Your task to perform on an android device: Open settings on Google Maps Image 0: 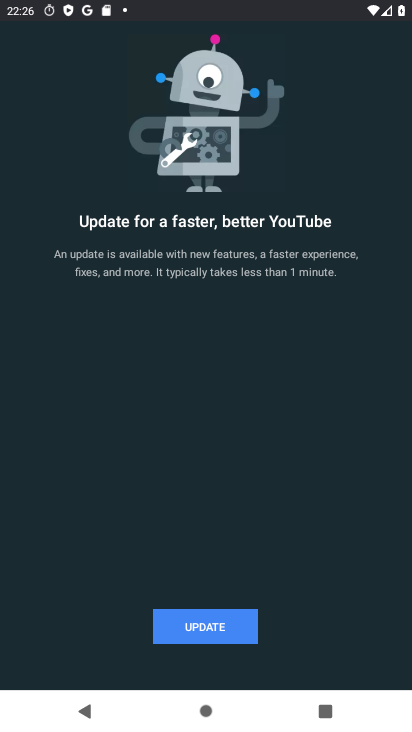
Step 0: press home button
Your task to perform on an android device: Open settings on Google Maps Image 1: 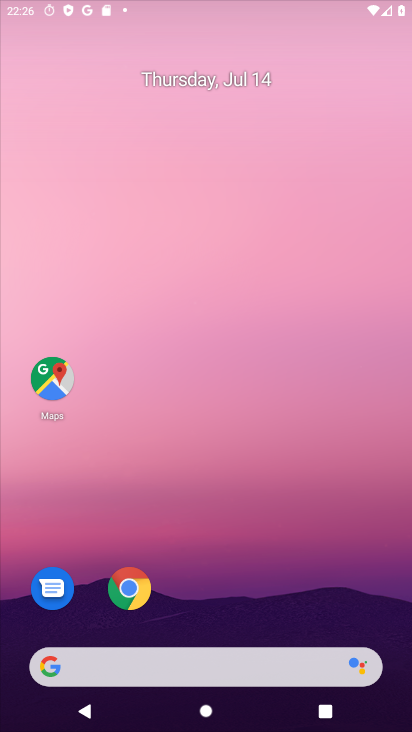
Step 1: drag from (218, 610) to (279, 218)
Your task to perform on an android device: Open settings on Google Maps Image 2: 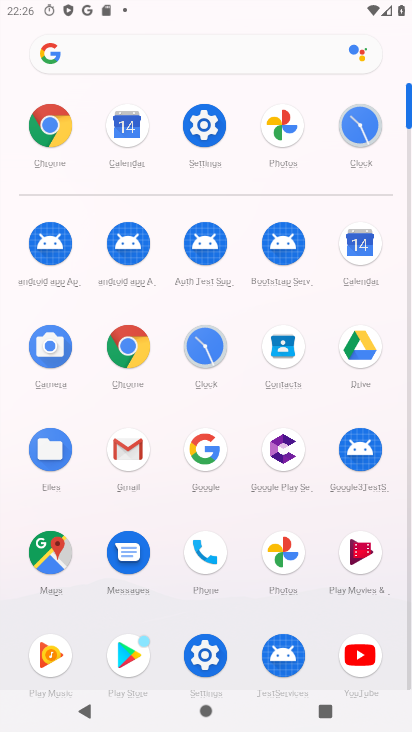
Step 2: click (46, 556)
Your task to perform on an android device: Open settings on Google Maps Image 3: 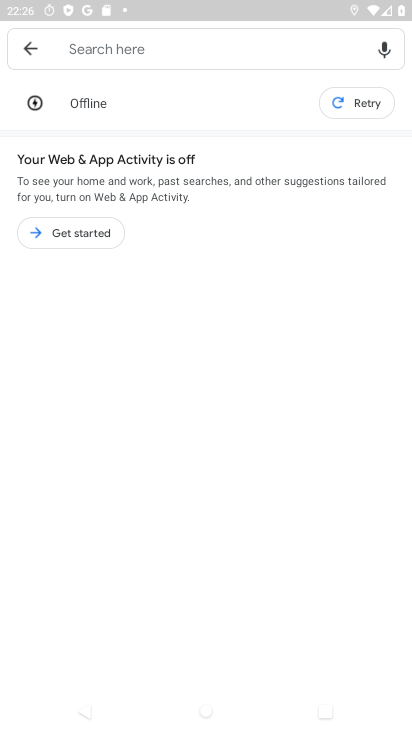
Step 3: press back button
Your task to perform on an android device: Open settings on Google Maps Image 4: 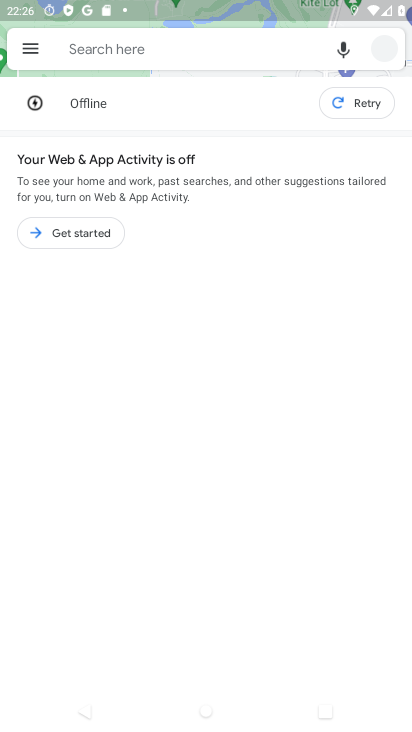
Step 4: click (25, 53)
Your task to perform on an android device: Open settings on Google Maps Image 5: 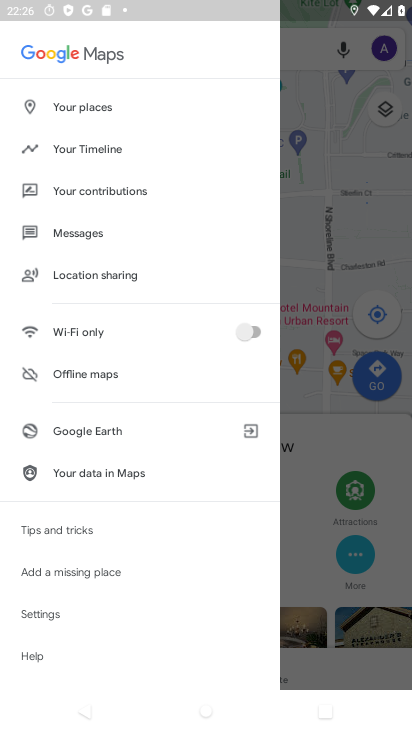
Step 5: click (46, 618)
Your task to perform on an android device: Open settings on Google Maps Image 6: 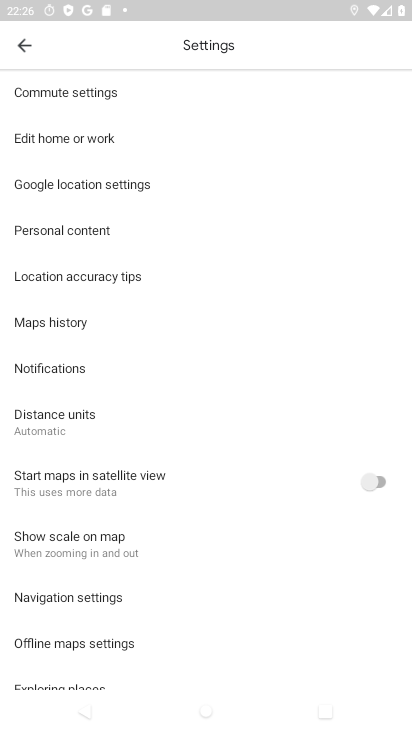
Step 6: task complete